Your task to perform on an android device: toggle notifications settings in the gmail app Image 0: 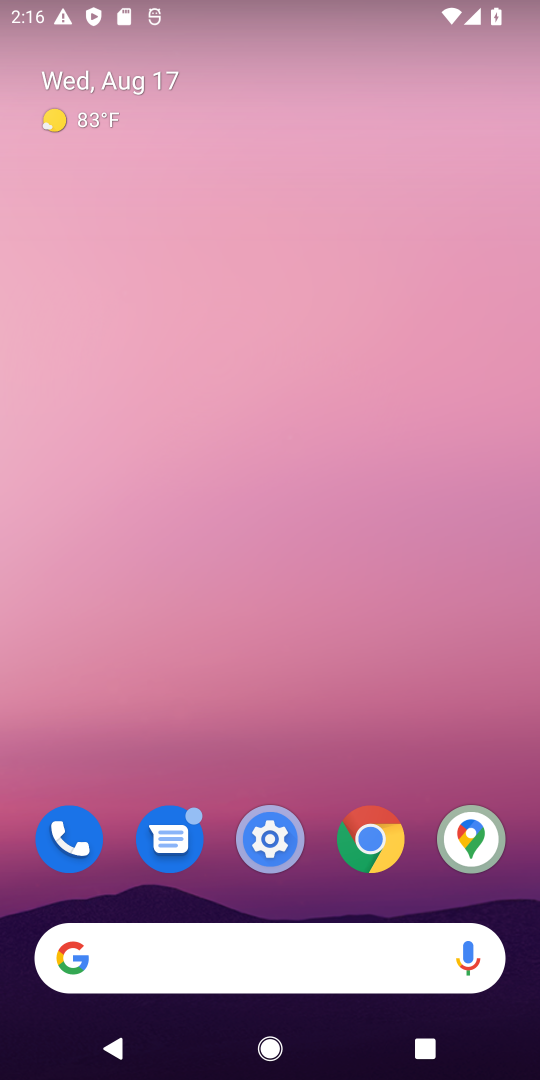
Step 0: drag from (280, 408) to (228, 75)
Your task to perform on an android device: toggle notifications settings in the gmail app Image 1: 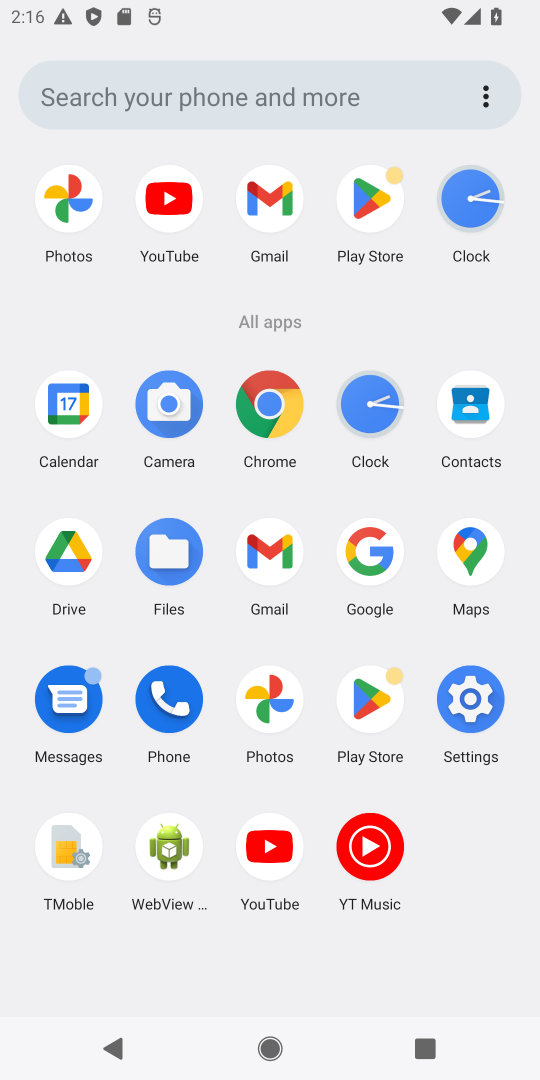
Step 1: click (273, 556)
Your task to perform on an android device: toggle notifications settings in the gmail app Image 2: 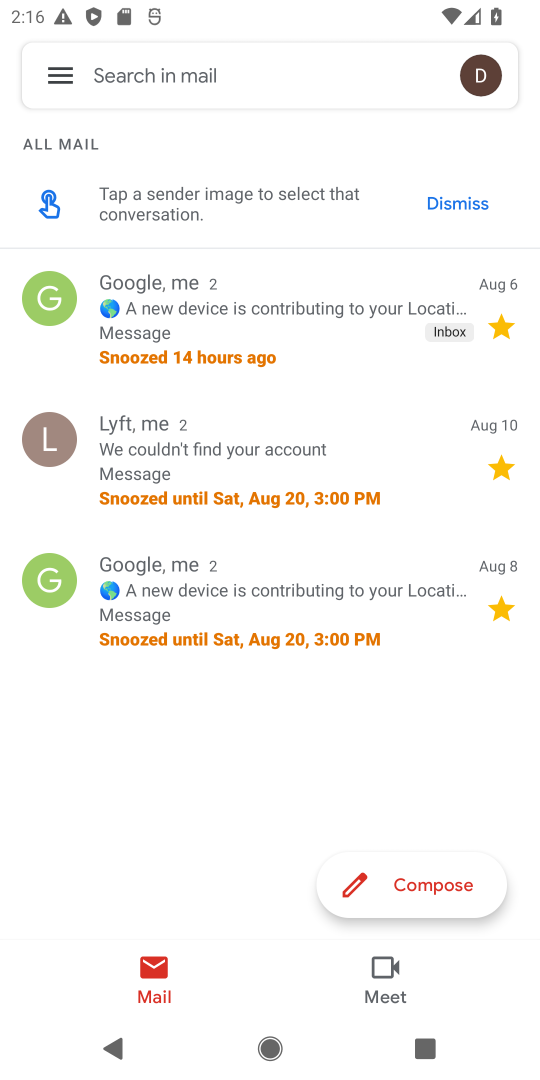
Step 2: click (57, 82)
Your task to perform on an android device: toggle notifications settings in the gmail app Image 3: 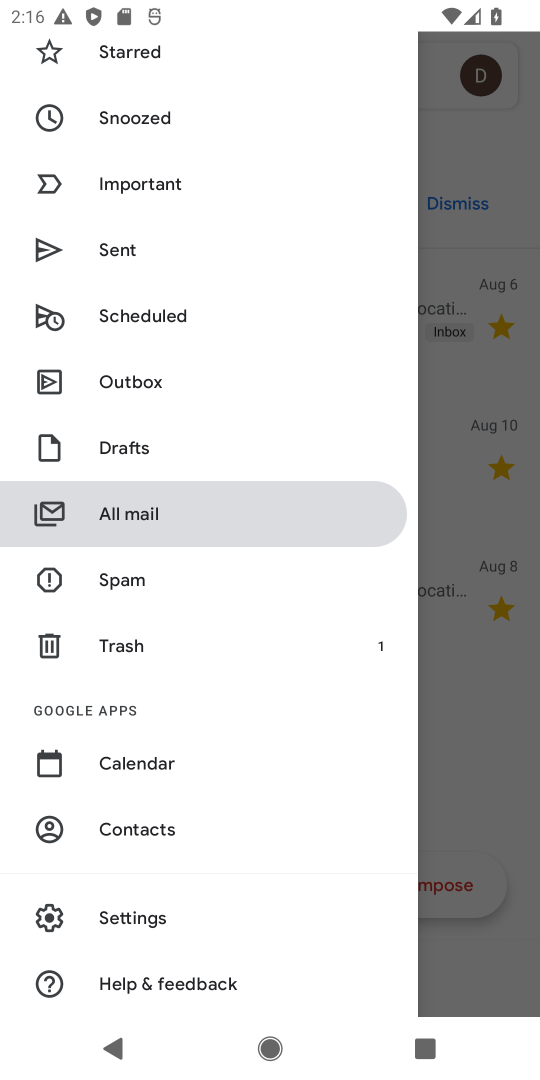
Step 3: click (139, 915)
Your task to perform on an android device: toggle notifications settings in the gmail app Image 4: 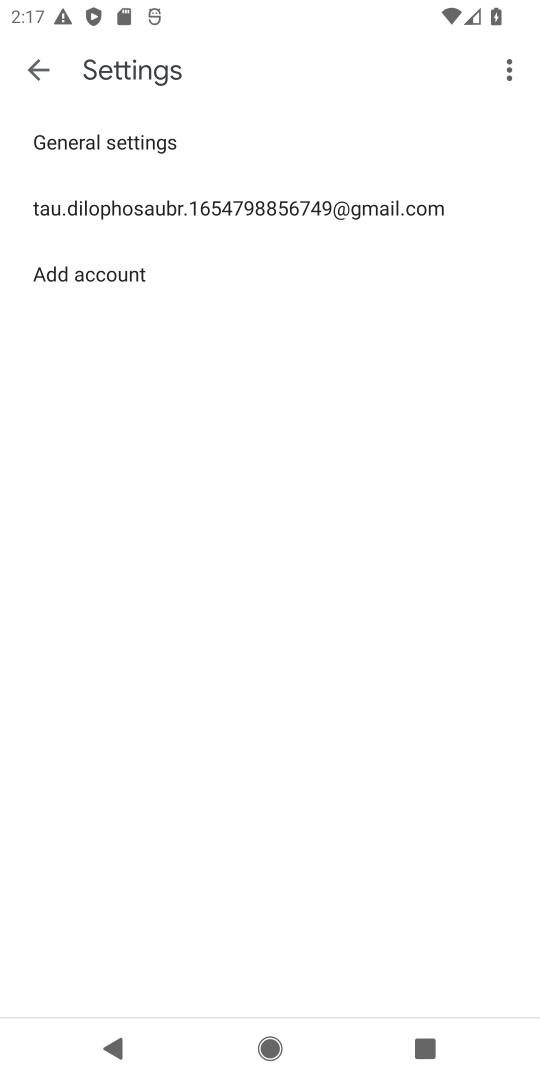
Step 4: click (199, 207)
Your task to perform on an android device: toggle notifications settings in the gmail app Image 5: 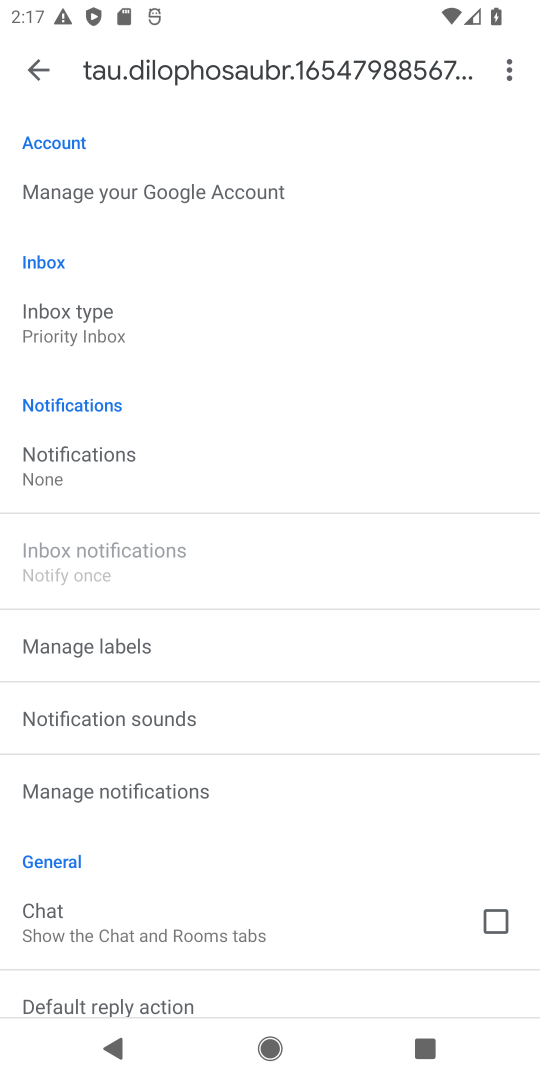
Step 5: click (68, 454)
Your task to perform on an android device: toggle notifications settings in the gmail app Image 6: 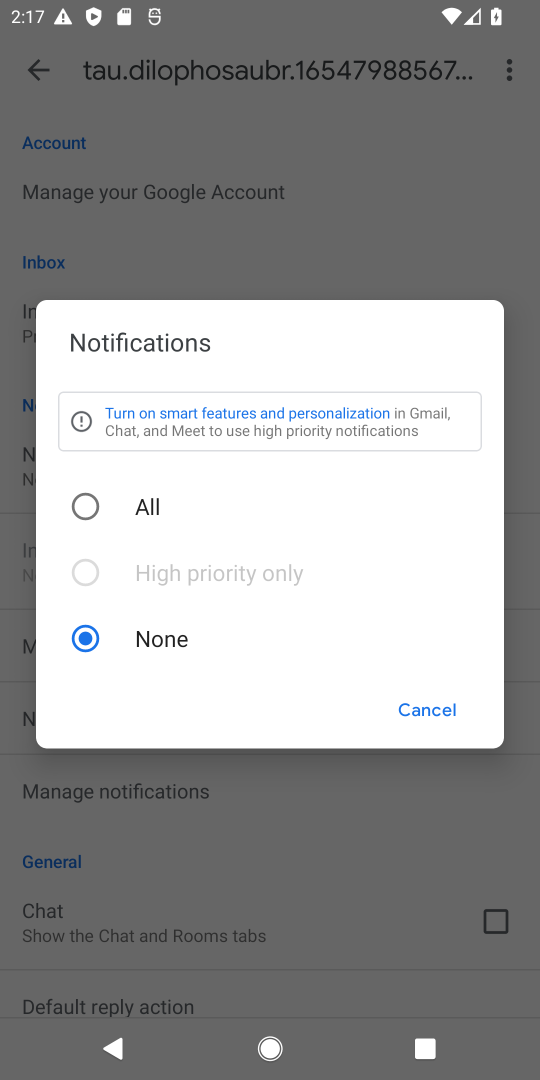
Step 6: click (87, 494)
Your task to perform on an android device: toggle notifications settings in the gmail app Image 7: 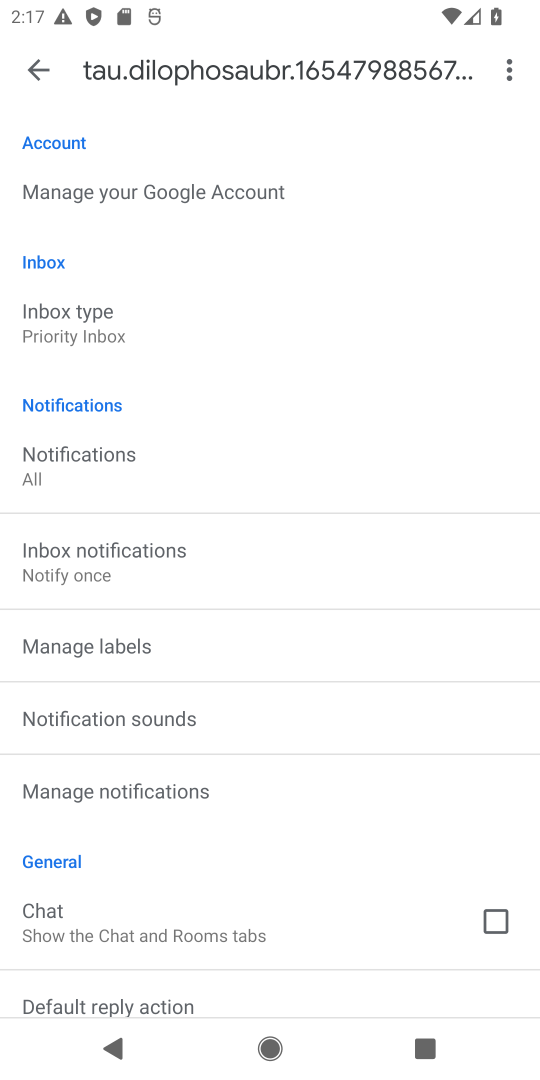
Step 7: task complete